Your task to perform on an android device: Toggle the flashlight Image 0: 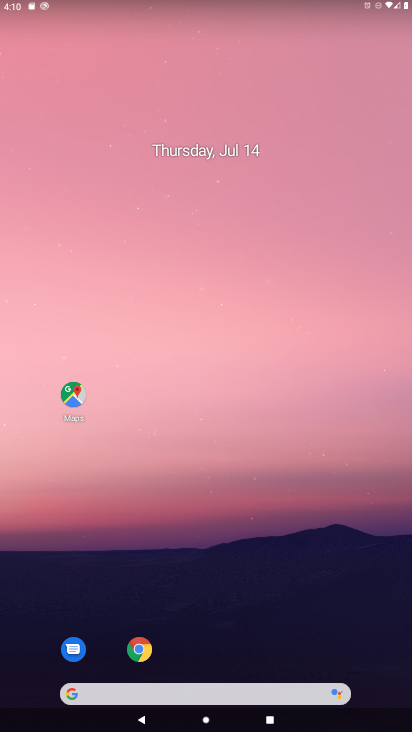
Step 0: drag from (224, 550) to (268, 121)
Your task to perform on an android device: Toggle the flashlight Image 1: 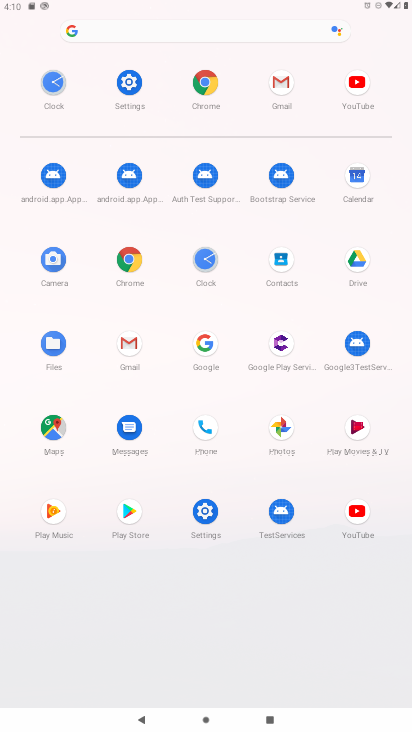
Step 1: click (206, 522)
Your task to perform on an android device: Toggle the flashlight Image 2: 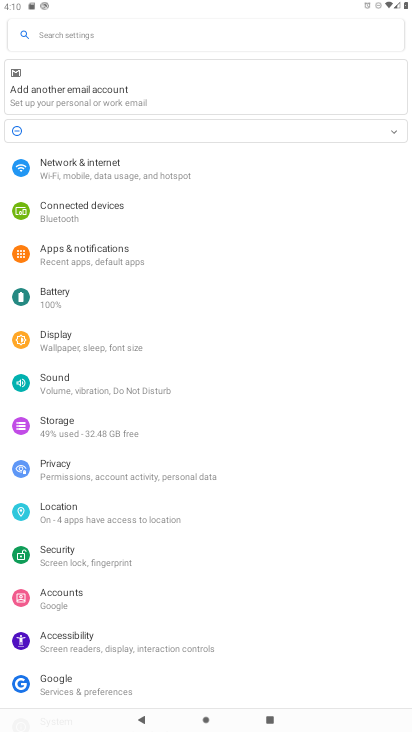
Step 2: click (270, 33)
Your task to perform on an android device: Toggle the flashlight Image 3: 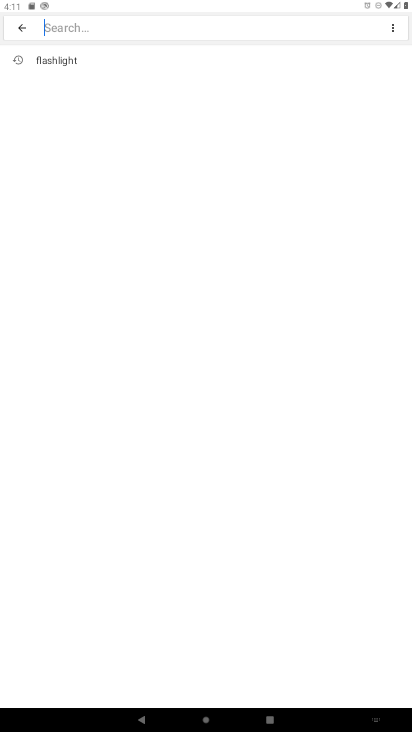
Step 3: type "flashlight"
Your task to perform on an android device: Toggle the flashlight Image 4: 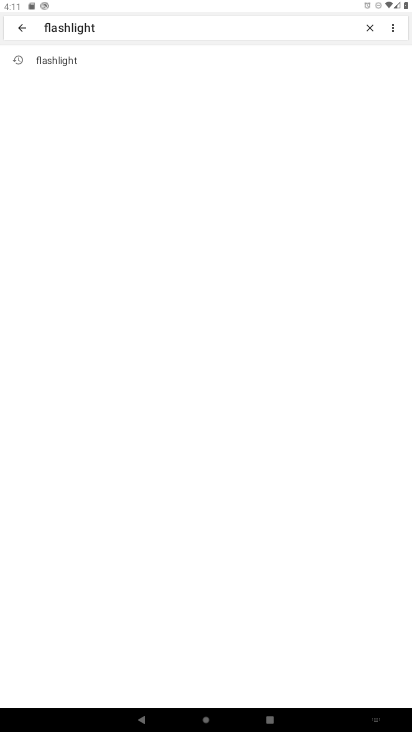
Step 4: click (99, 67)
Your task to perform on an android device: Toggle the flashlight Image 5: 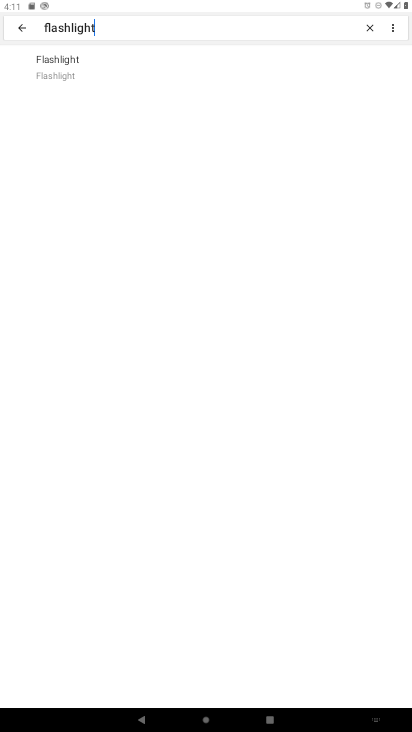
Step 5: click (103, 67)
Your task to perform on an android device: Toggle the flashlight Image 6: 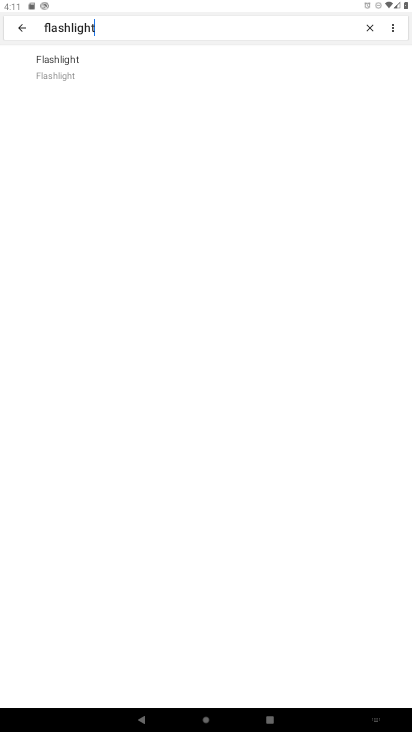
Step 6: task complete